Your task to perform on an android device: check storage Image 0: 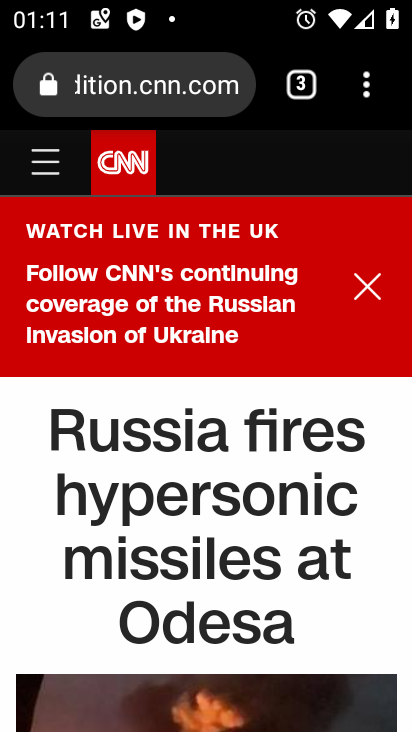
Step 0: press home button
Your task to perform on an android device: check storage Image 1: 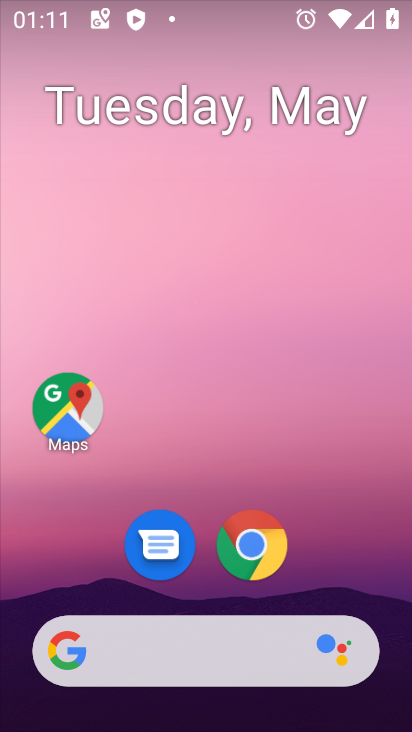
Step 1: drag from (333, 582) to (308, 22)
Your task to perform on an android device: check storage Image 2: 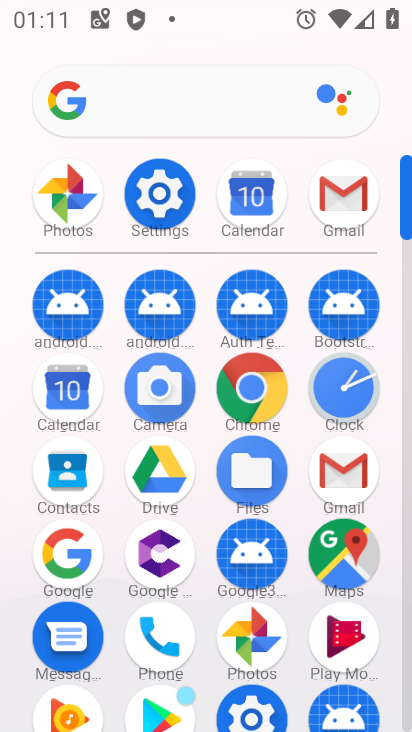
Step 2: click (164, 216)
Your task to perform on an android device: check storage Image 3: 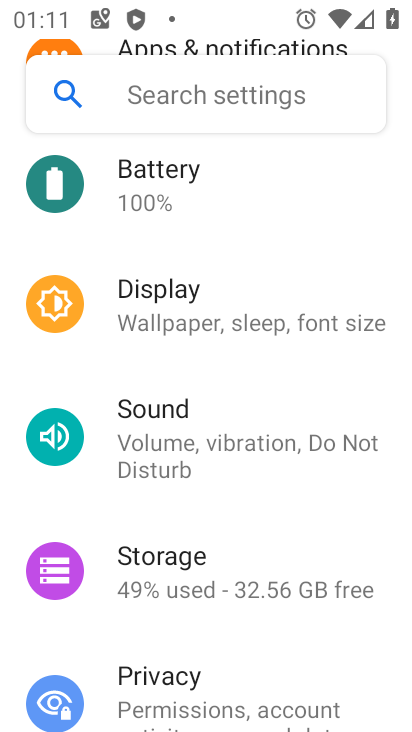
Step 3: click (175, 560)
Your task to perform on an android device: check storage Image 4: 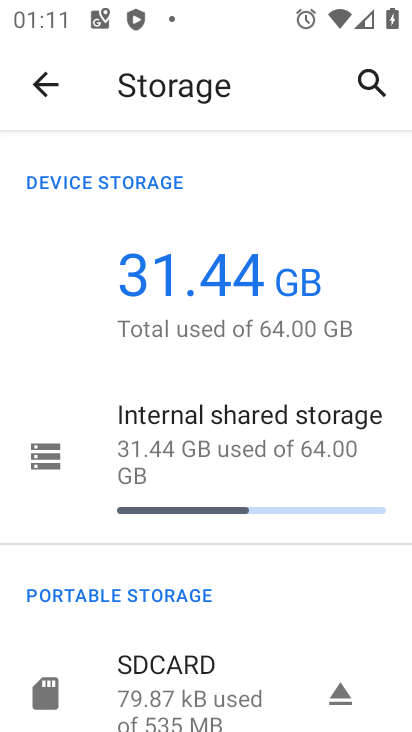
Step 4: task complete